Your task to perform on an android device: turn off sleep mode Image 0: 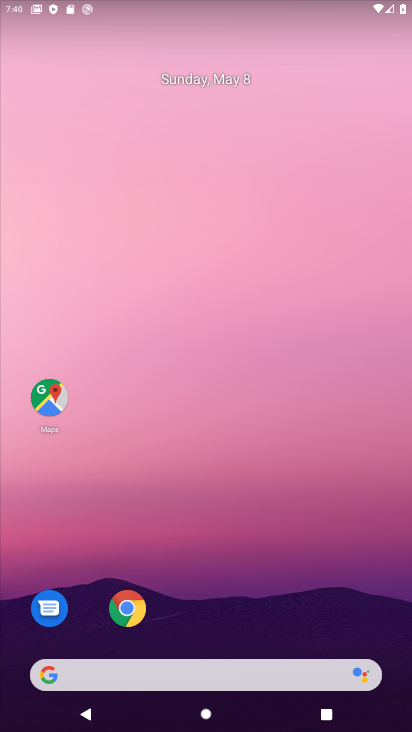
Step 0: drag from (286, 622) to (328, 226)
Your task to perform on an android device: turn off sleep mode Image 1: 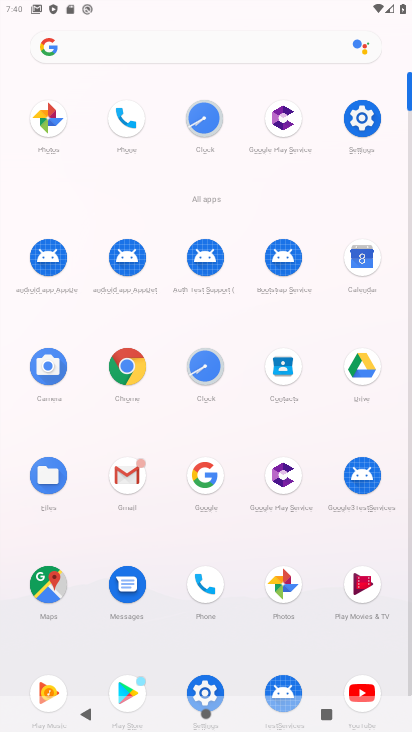
Step 1: click (362, 107)
Your task to perform on an android device: turn off sleep mode Image 2: 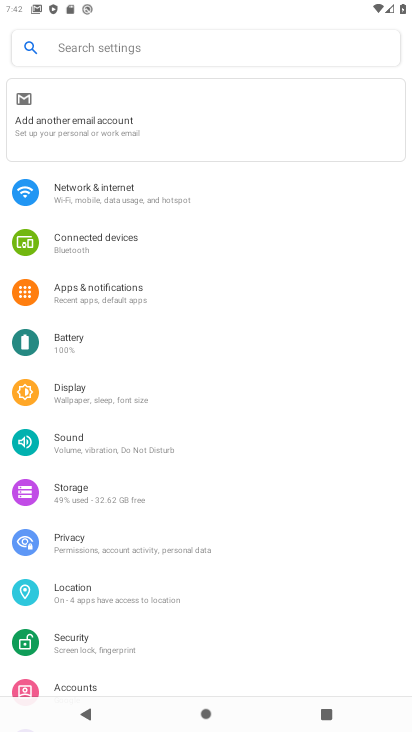
Step 2: task complete